Your task to perform on an android device: toggle wifi Image 0: 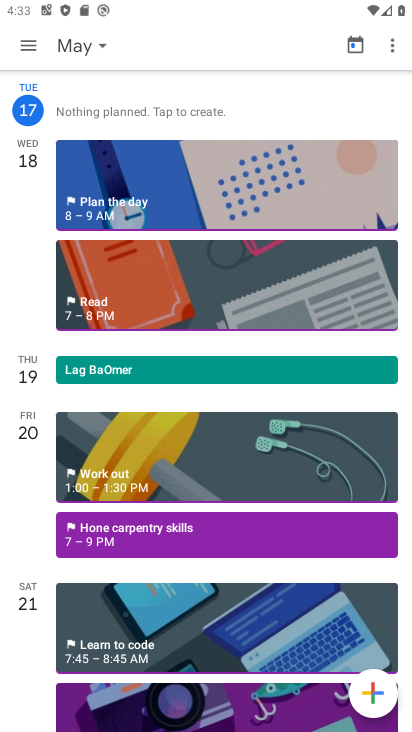
Step 0: drag from (124, 2) to (146, 408)
Your task to perform on an android device: toggle wifi Image 1: 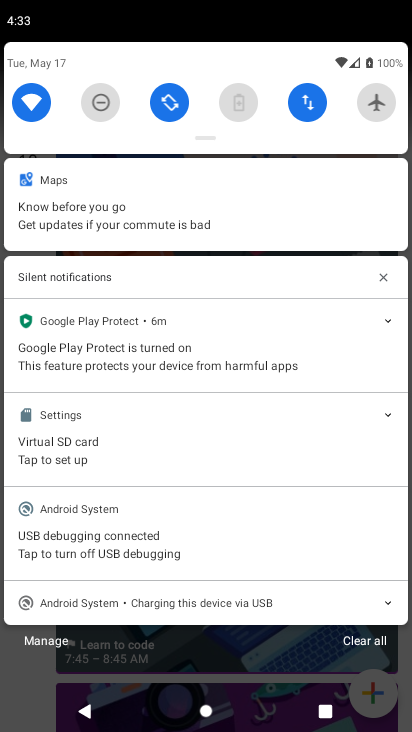
Step 1: click (34, 99)
Your task to perform on an android device: toggle wifi Image 2: 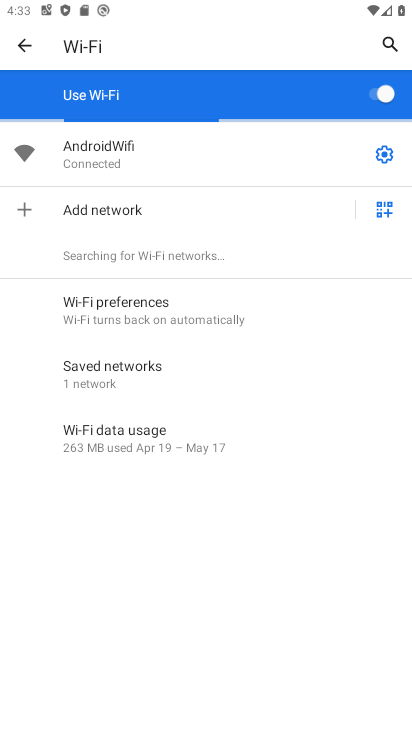
Step 2: click (377, 93)
Your task to perform on an android device: toggle wifi Image 3: 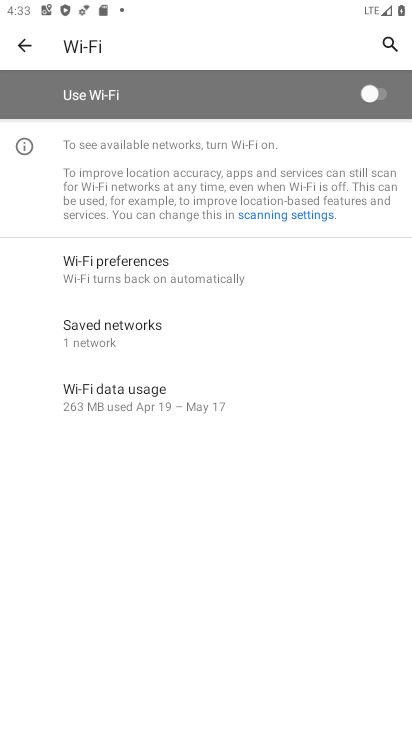
Step 3: task complete